Your task to perform on an android device: Open Google Image 0: 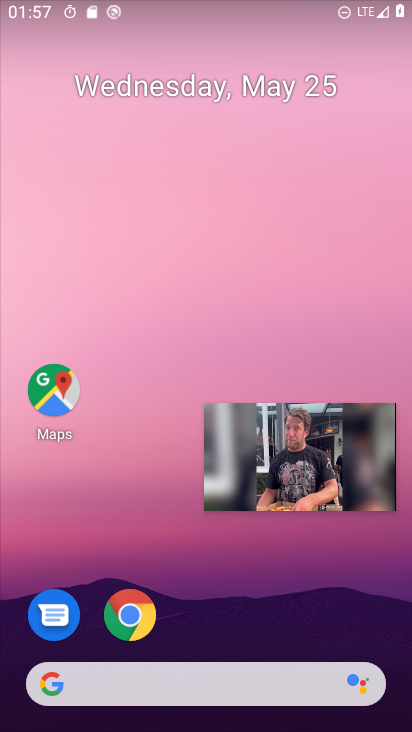
Step 0: click (374, 422)
Your task to perform on an android device: Open Google Image 1: 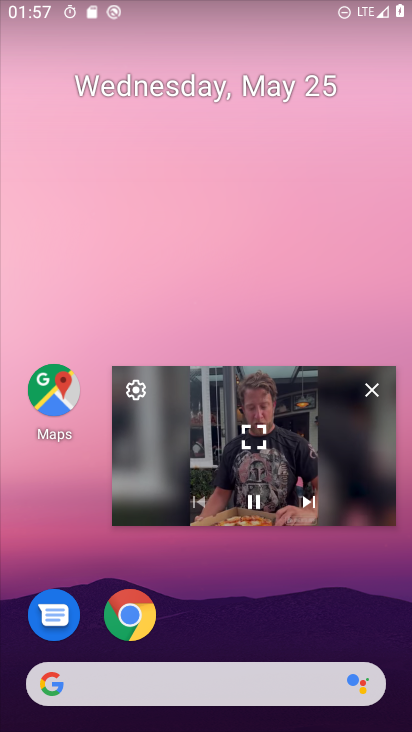
Step 1: click (377, 396)
Your task to perform on an android device: Open Google Image 2: 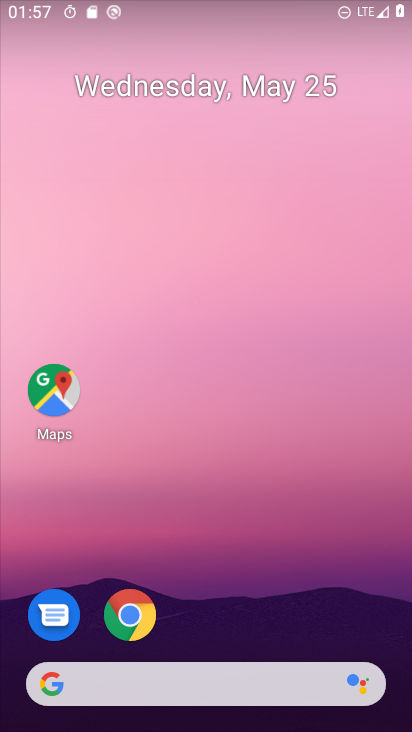
Step 2: drag from (190, 700) to (398, 5)
Your task to perform on an android device: Open Google Image 3: 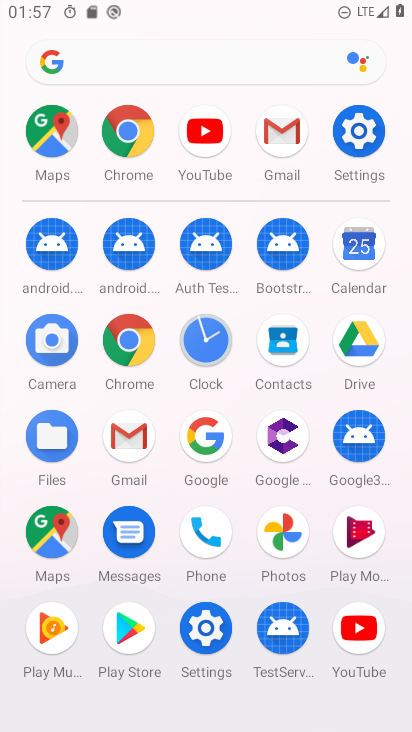
Step 3: click (247, 331)
Your task to perform on an android device: Open Google Image 4: 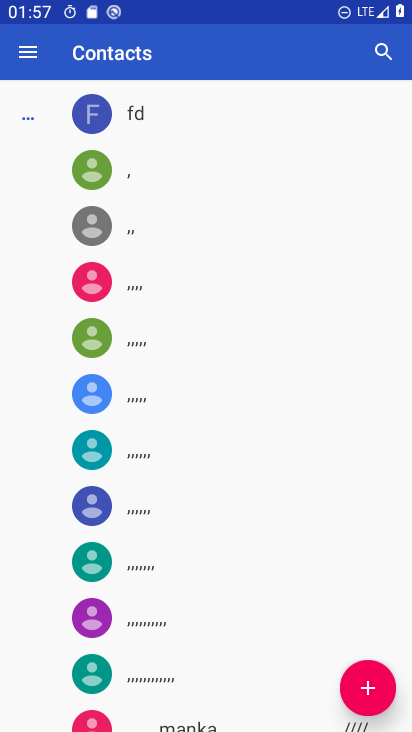
Step 4: press home button
Your task to perform on an android device: Open Google Image 5: 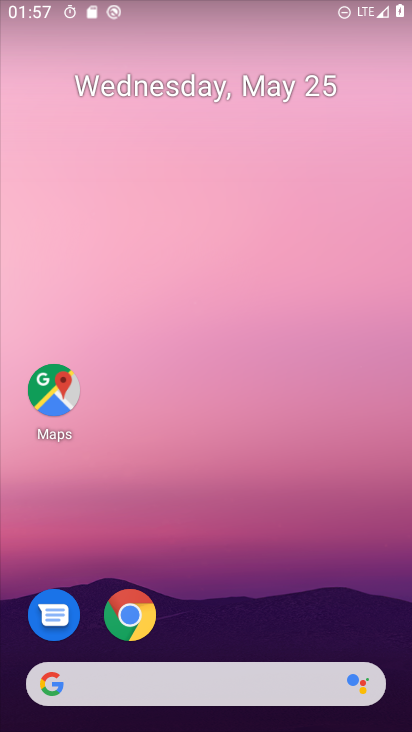
Step 5: drag from (240, 725) to (342, 128)
Your task to perform on an android device: Open Google Image 6: 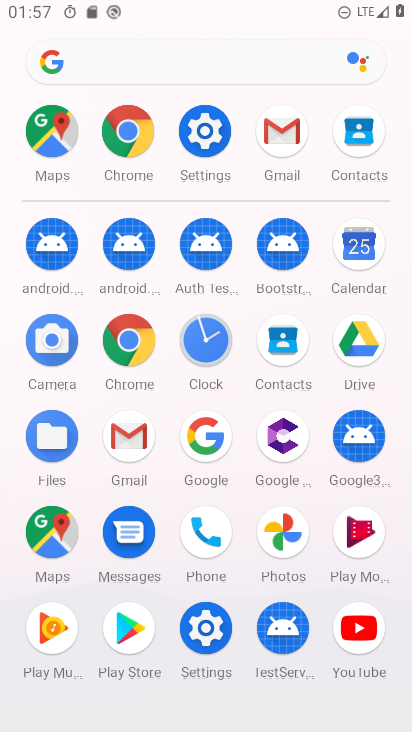
Step 6: click (51, 67)
Your task to perform on an android device: Open Google Image 7: 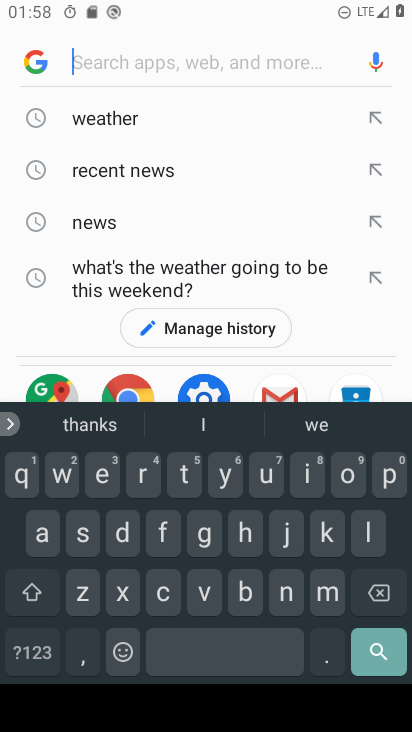
Step 7: click (38, 59)
Your task to perform on an android device: Open Google Image 8: 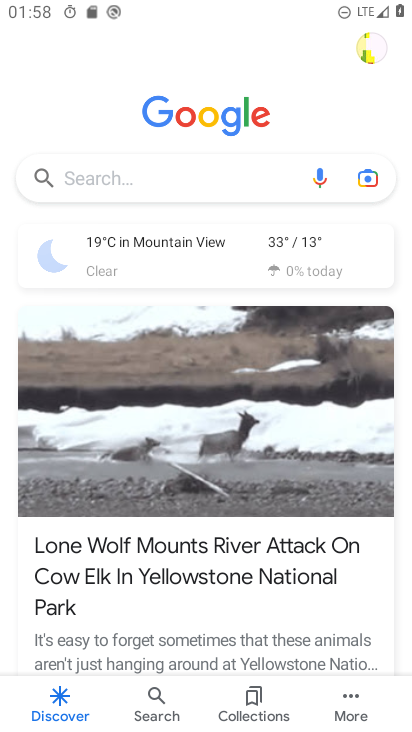
Step 8: task complete